Your task to perform on an android device: read, delete, or share a saved page in the chrome app Image 0: 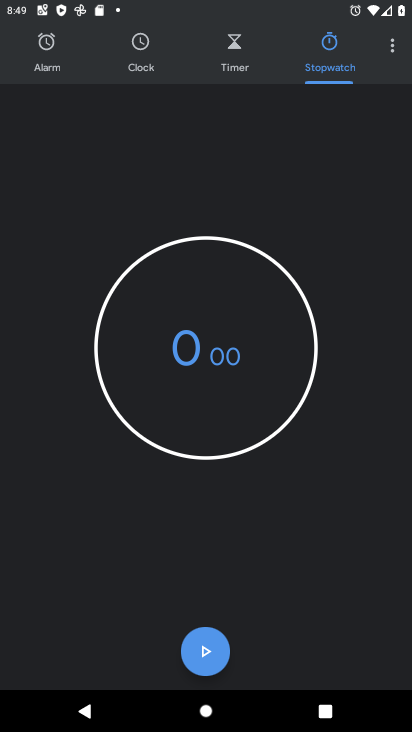
Step 0: press home button
Your task to perform on an android device: read, delete, or share a saved page in the chrome app Image 1: 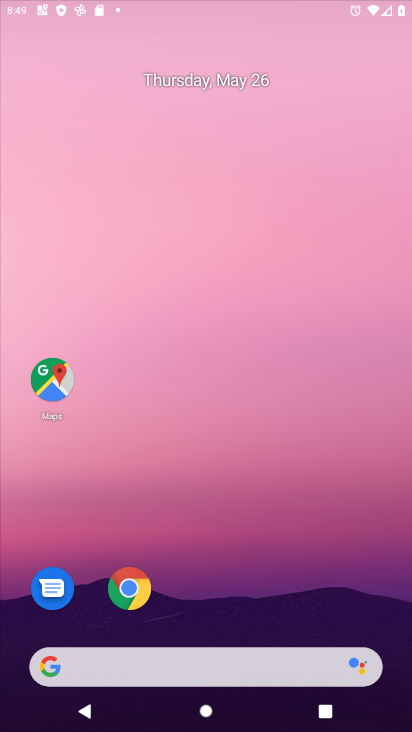
Step 1: drag from (398, 557) to (324, 22)
Your task to perform on an android device: read, delete, or share a saved page in the chrome app Image 2: 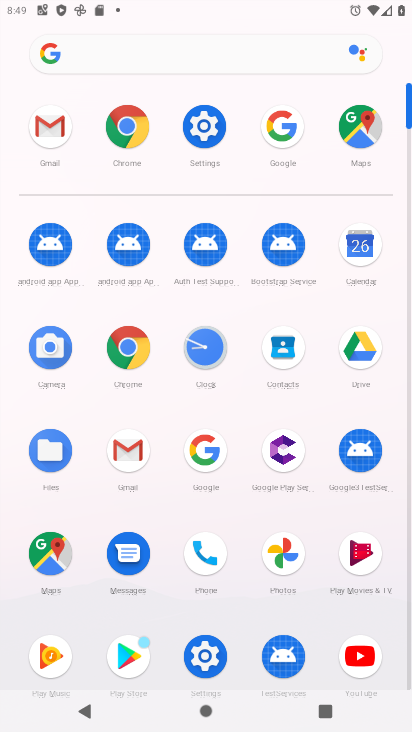
Step 2: click (136, 151)
Your task to perform on an android device: read, delete, or share a saved page in the chrome app Image 3: 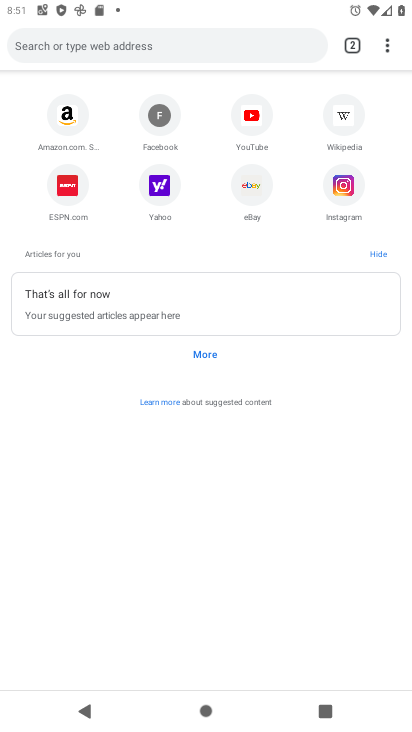
Step 3: task complete